Your task to perform on an android device: star an email in the gmail app Image 0: 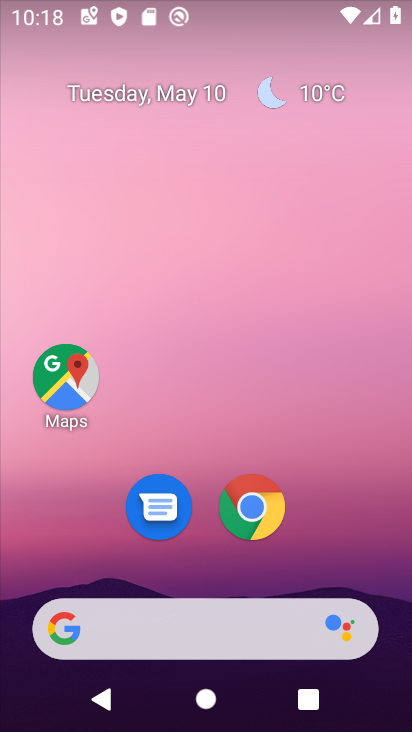
Step 0: drag from (322, 528) to (304, 50)
Your task to perform on an android device: star an email in the gmail app Image 1: 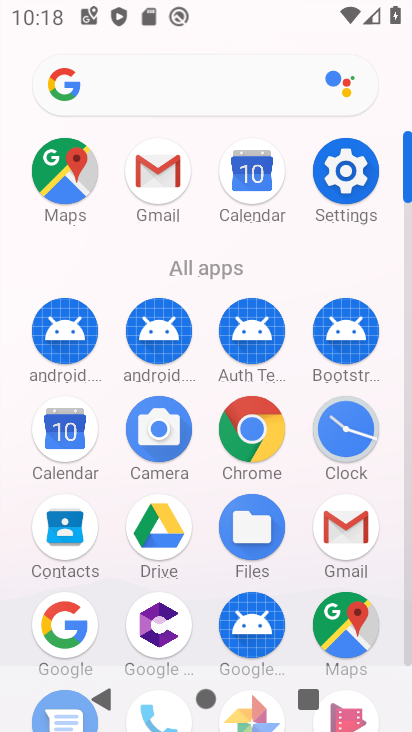
Step 1: click (342, 536)
Your task to perform on an android device: star an email in the gmail app Image 2: 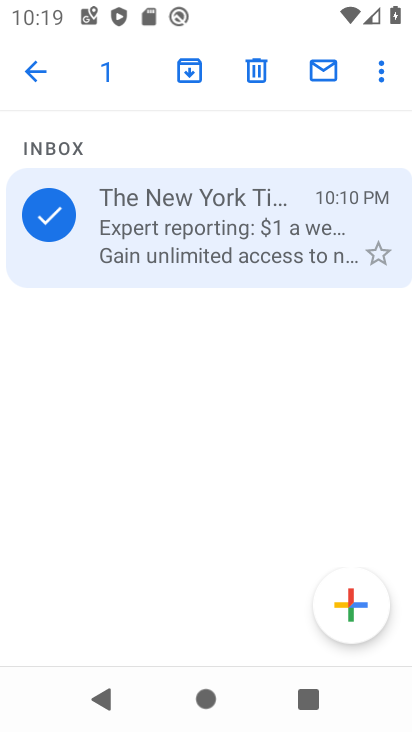
Step 2: click (375, 263)
Your task to perform on an android device: star an email in the gmail app Image 3: 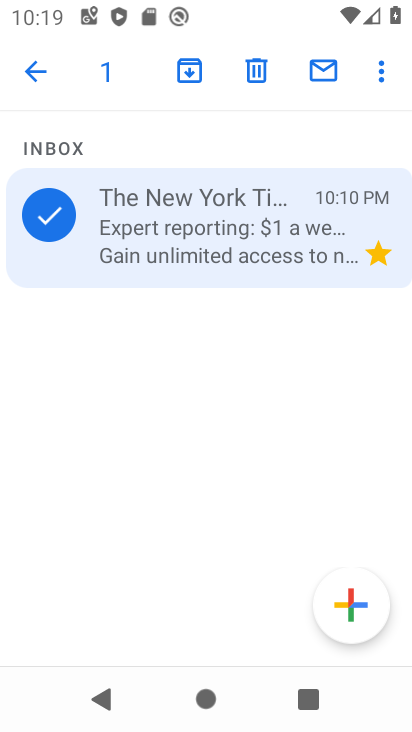
Step 3: task complete